Your task to perform on an android device: Is it going to rain today? Image 0: 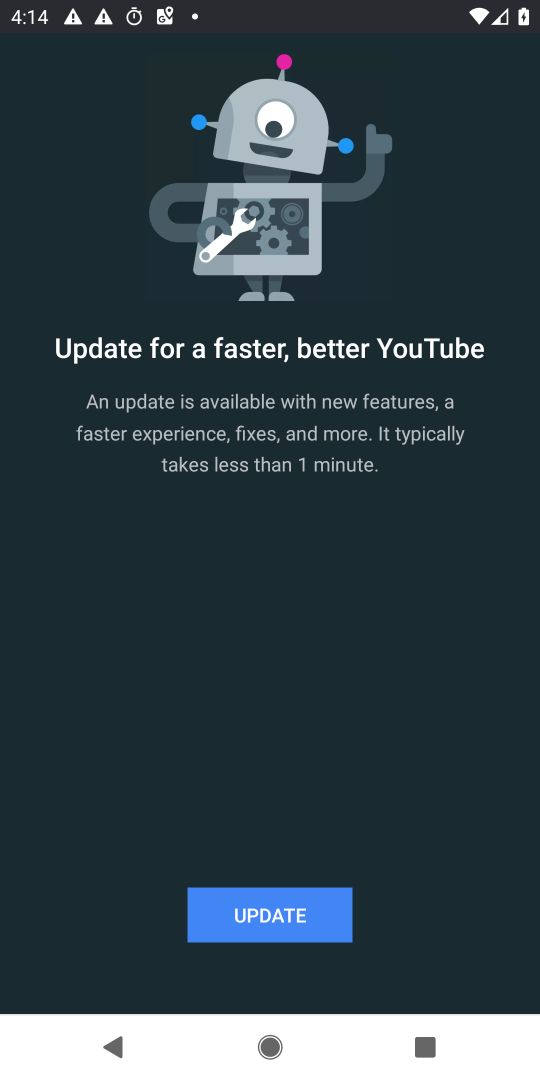
Step 0: press home button
Your task to perform on an android device: Is it going to rain today? Image 1: 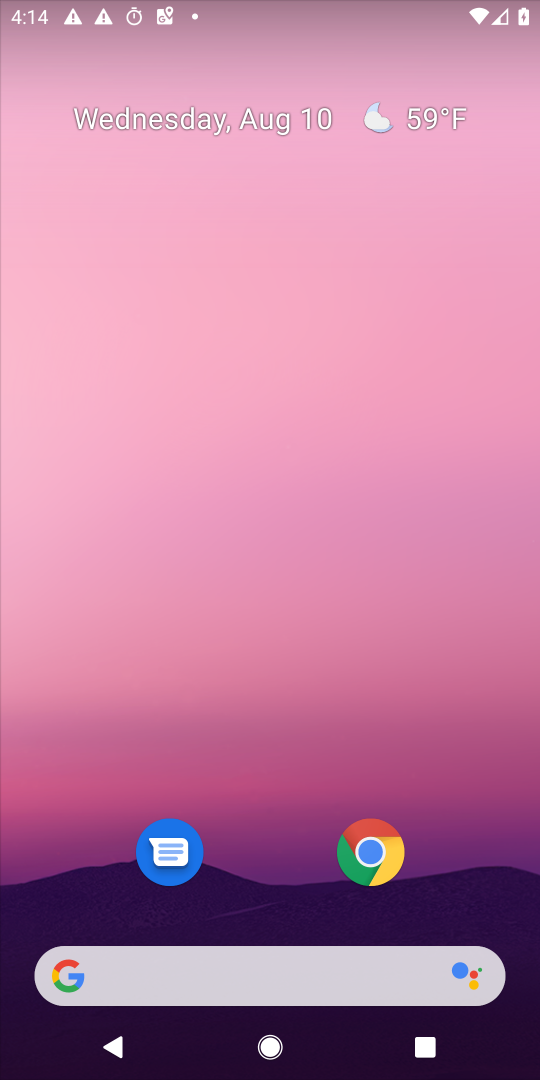
Step 1: click (446, 119)
Your task to perform on an android device: Is it going to rain today? Image 2: 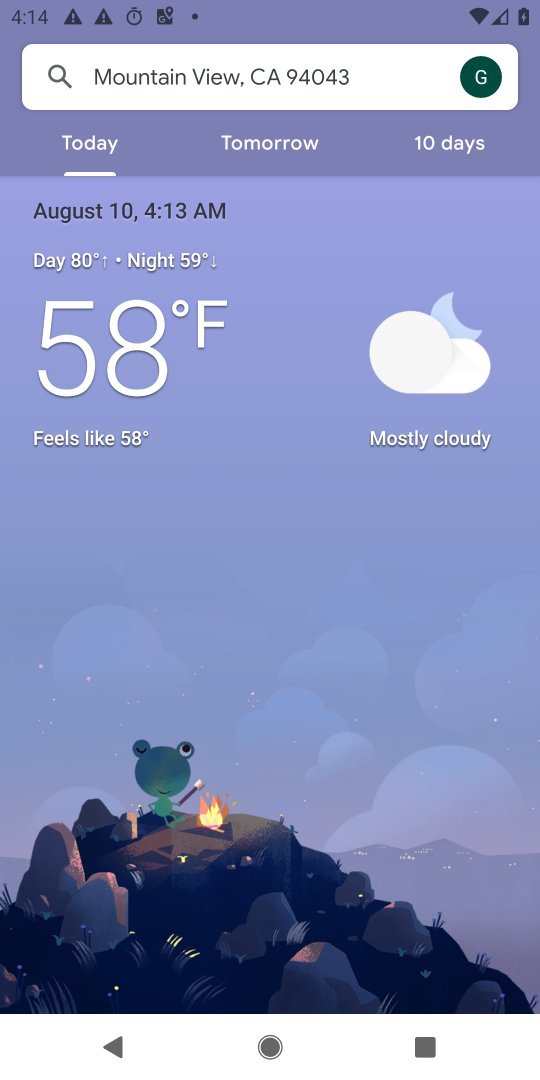
Step 2: task complete